Your task to perform on an android device: Open the Play Movies app and select the watchlist tab. Image 0: 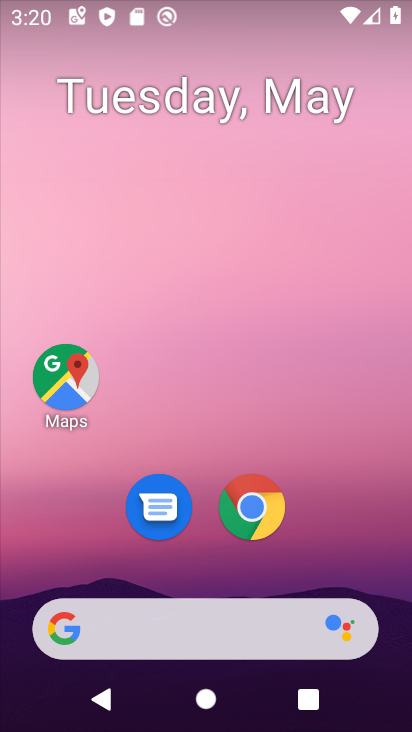
Step 0: drag from (195, 574) to (198, 27)
Your task to perform on an android device: Open the Play Movies app and select the watchlist tab. Image 1: 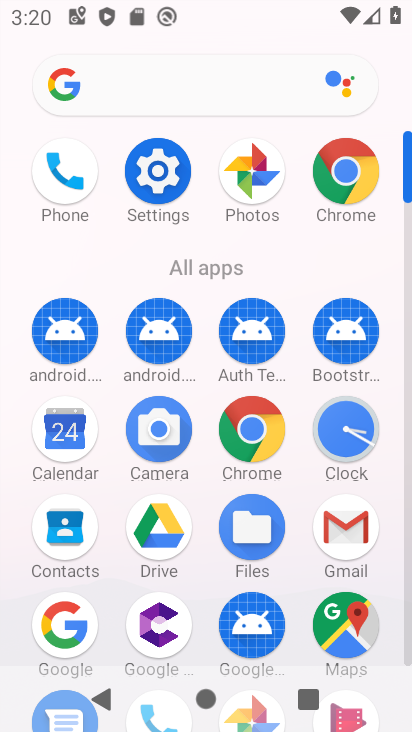
Step 1: drag from (305, 587) to (309, 352)
Your task to perform on an android device: Open the Play Movies app and select the watchlist tab. Image 2: 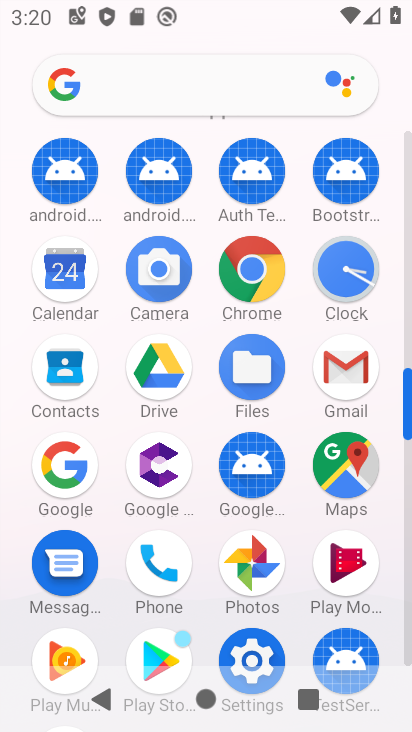
Step 2: click (345, 558)
Your task to perform on an android device: Open the Play Movies app and select the watchlist tab. Image 3: 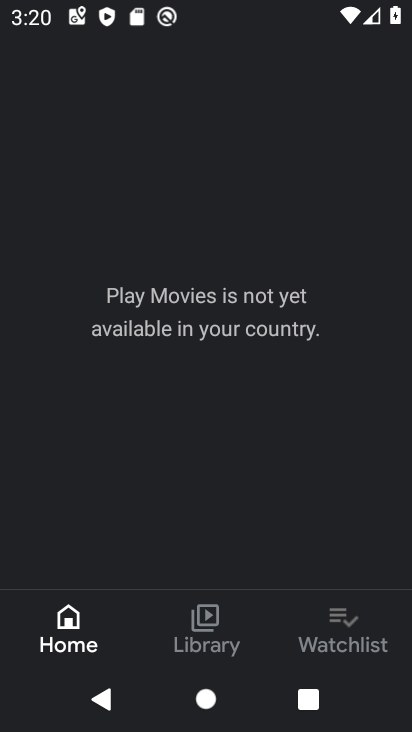
Step 3: click (347, 643)
Your task to perform on an android device: Open the Play Movies app and select the watchlist tab. Image 4: 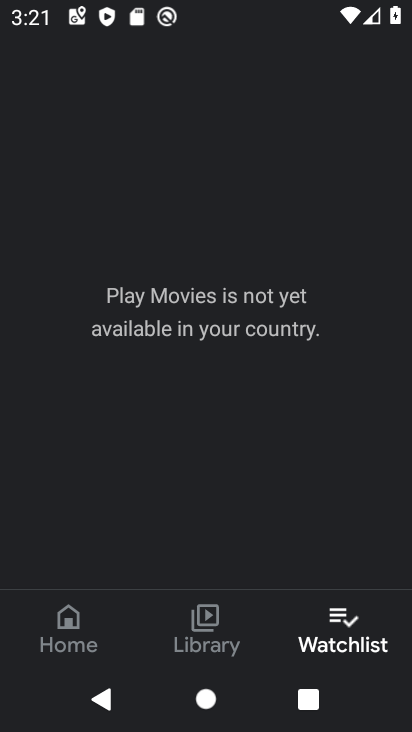
Step 4: task complete